Your task to perform on an android device: turn on the 12-hour format for clock Image 0: 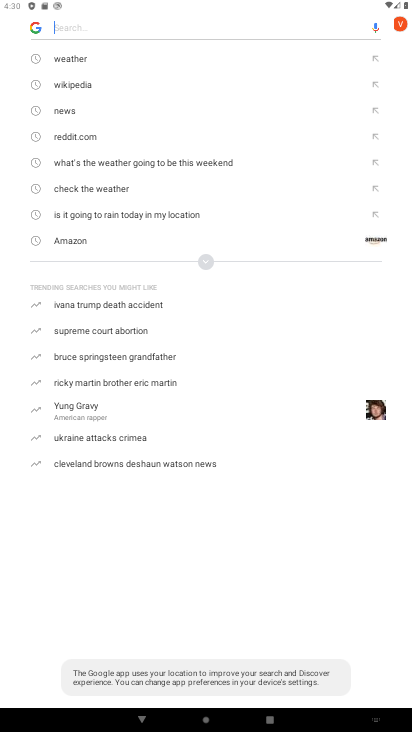
Step 0: press home button
Your task to perform on an android device: turn on the 12-hour format for clock Image 1: 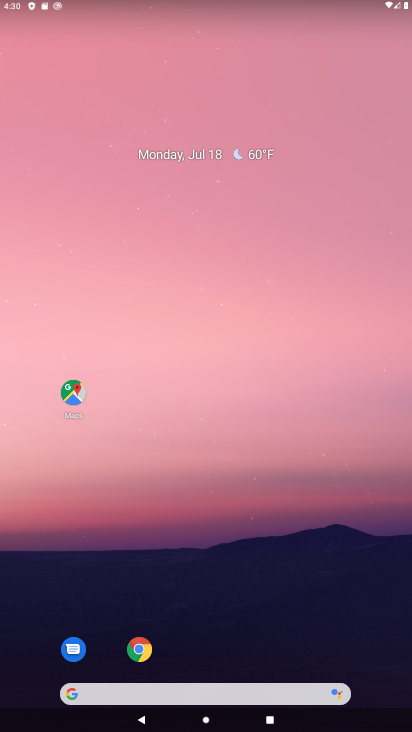
Step 1: drag from (181, 593) to (97, 2)
Your task to perform on an android device: turn on the 12-hour format for clock Image 2: 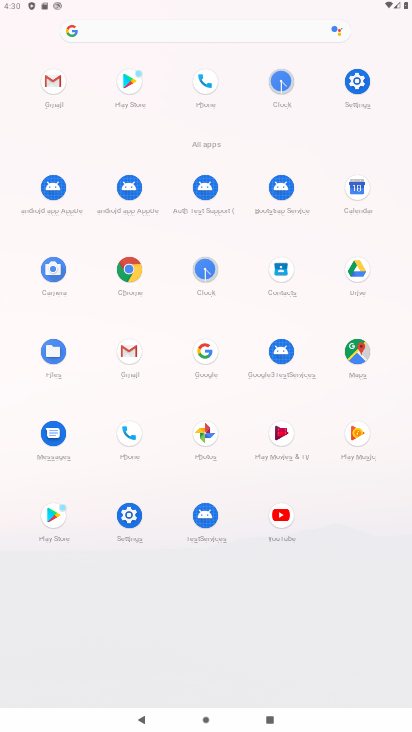
Step 2: click (136, 528)
Your task to perform on an android device: turn on the 12-hour format for clock Image 3: 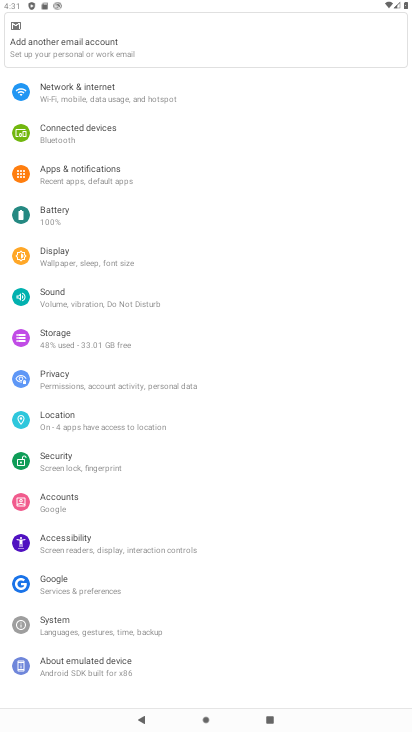
Step 3: click (71, 630)
Your task to perform on an android device: turn on the 12-hour format for clock Image 4: 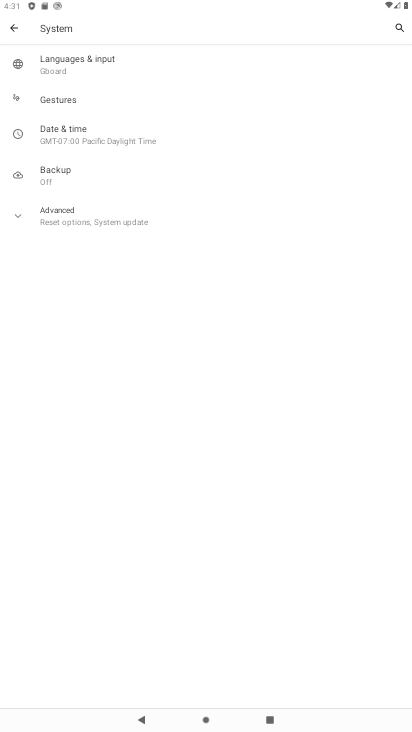
Step 4: click (119, 138)
Your task to perform on an android device: turn on the 12-hour format for clock Image 5: 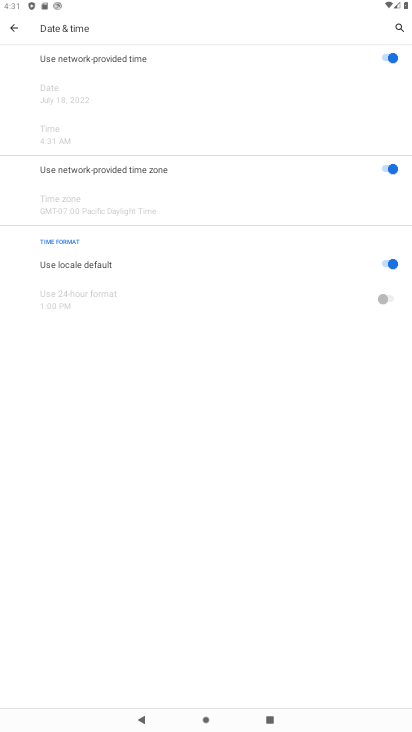
Step 5: task complete